Your task to perform on an android device: clear all cookies in the chrome app Image 0: 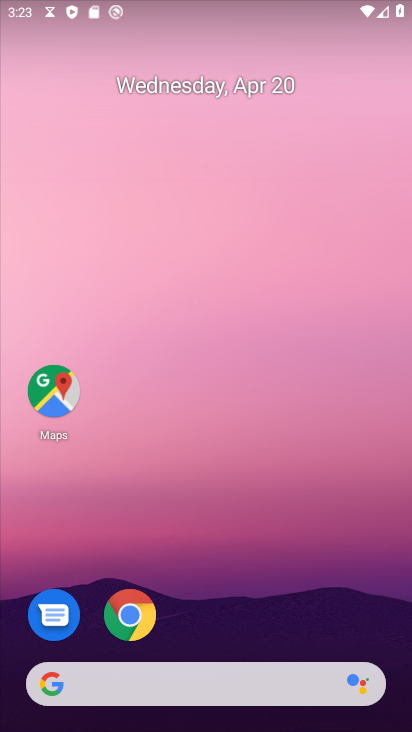
Step 0: click (135, 614)
Your task to perform on an android device: clear all cookies in the chrome app Image 1: 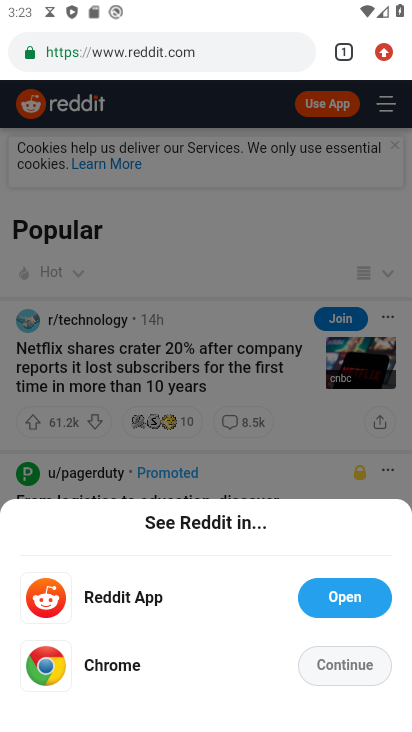
Step 1: click (384, 57)
Your task to perform on an android device: clear all cookies in the chrome app Image 2: 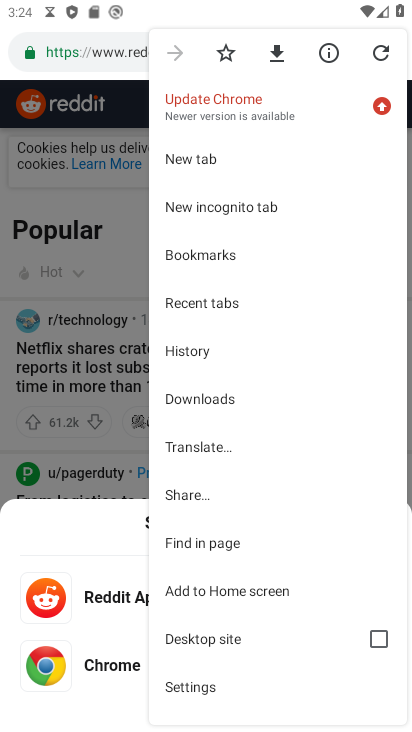
Step 2: click (206, 348)
Your task to perform on an android device: clear all cookies in the chrome app Image 3: 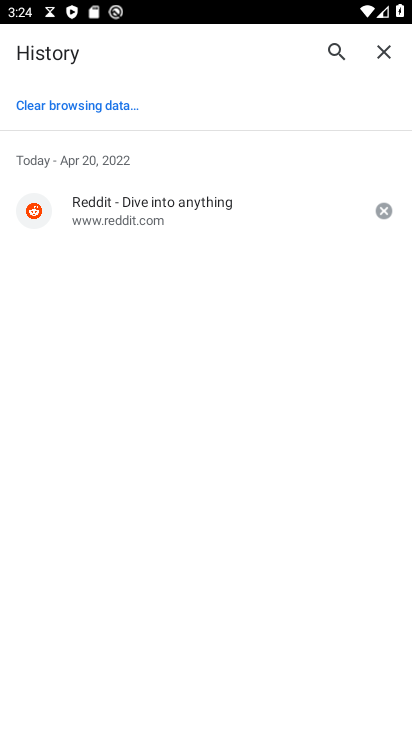
Step 3: click (90, 98)
Your task to perform on an android device: clear all cookies in the chrome app Image 4: 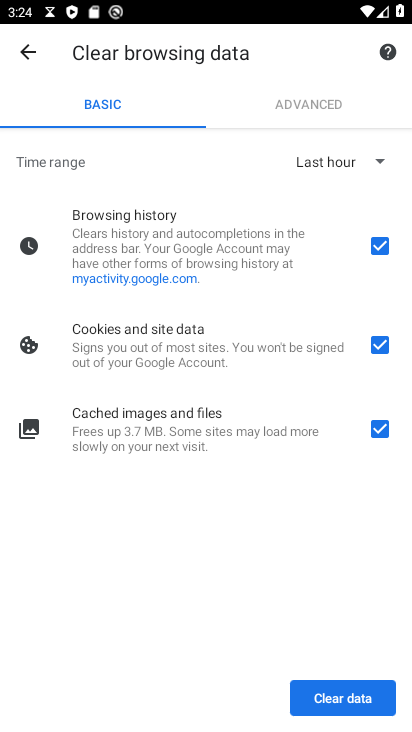
Step 4: click (323, 692)
Your task to perform on an android device: clear all cookies in the chrome app Image 5: 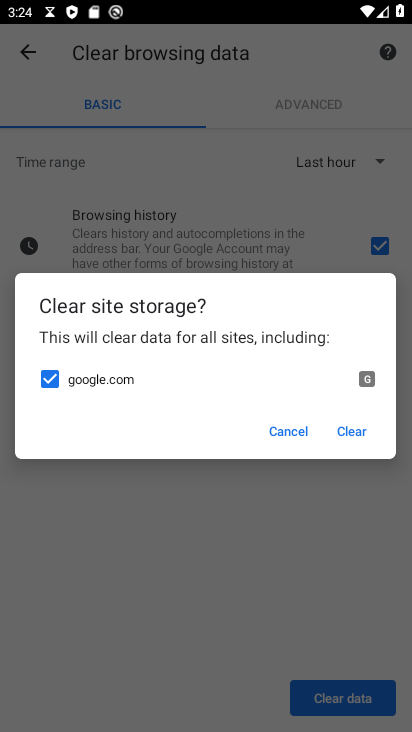
Step 5: click (352, 436)
Your task to perform on an android device: clear all cookies in the chrome app Image 6: 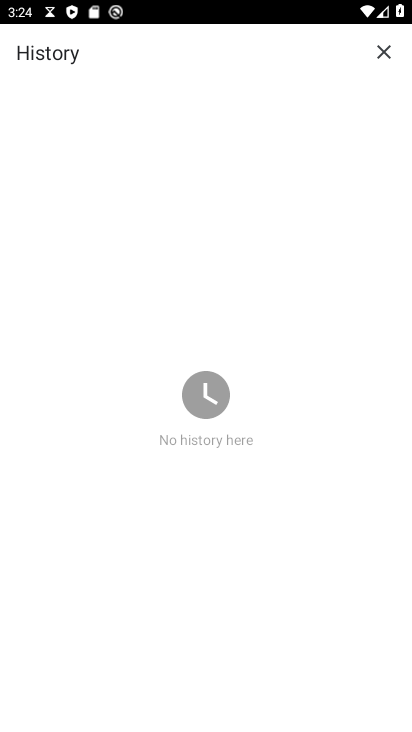
Step 6: task complete